Your task to perform on an android device: turn pop-ups on in chrome Image 0: 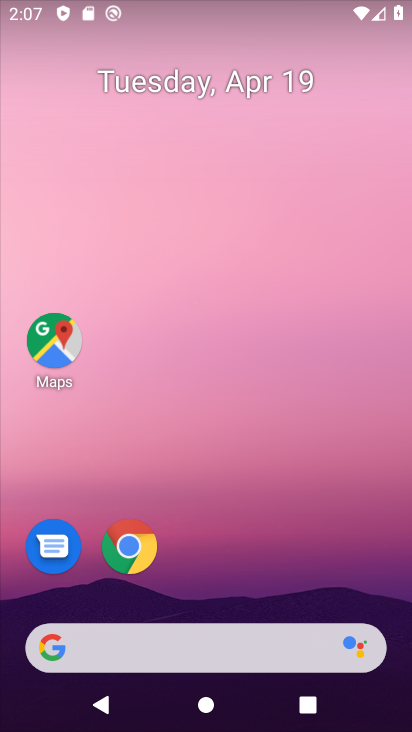
Step 0: click (131, 556)
Your task to perform on an android device: turn pop-ups on in chrome Image 1: 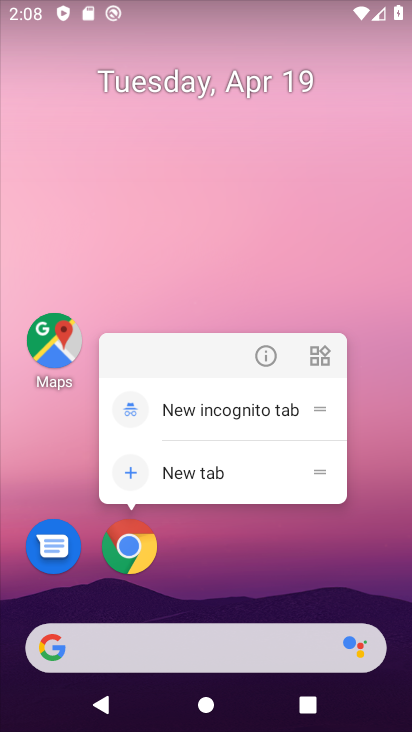
Step 1: click (131, 556)
Your task to perform on an android device: turn pop-ups on in chrome Image 2: 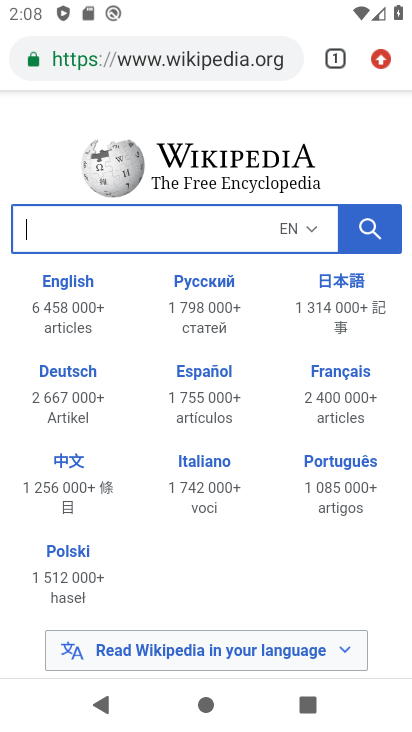
Step 2: drag from (379, 70) to (187, 575)
Your task to perform on an android device: turn pop-ups on in chrome Image 3: 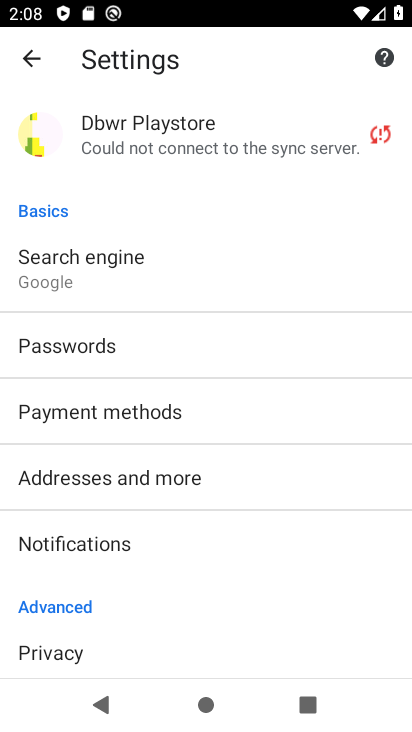
Step 3: drag from (111, 574) to (96, 51)
Your task to perform on an android device: turn pop-ups on in chrome Image 4: 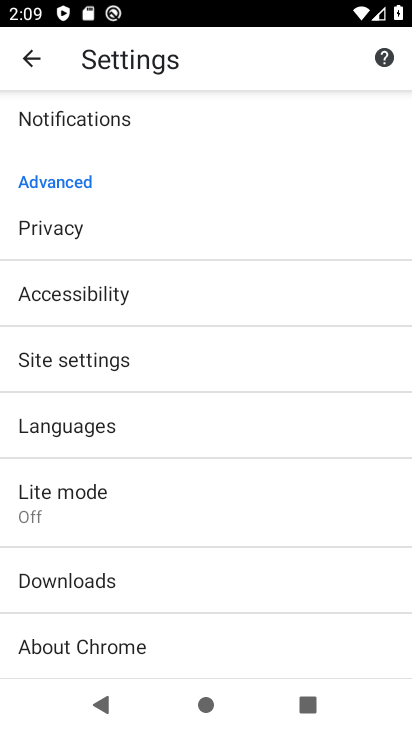
Step 4: click (73, 360)
Your task to perform on an android device: turn pop-ups on in chrome Image 5: 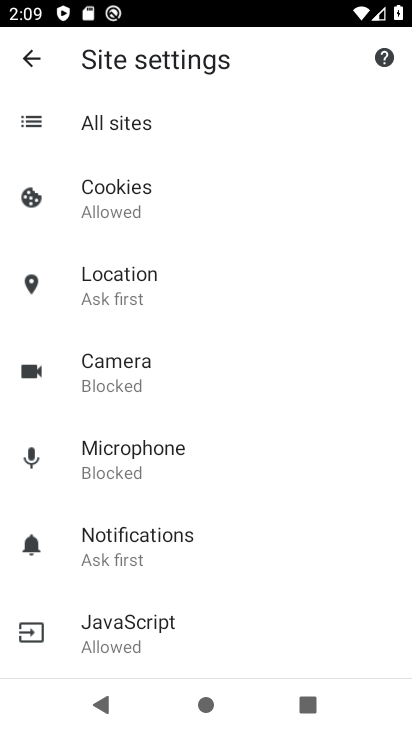
Step 5: drag from (146, 495) to (116, 137)
Your task to perform on an android device: turn pop-ups on in chrome Image 6: 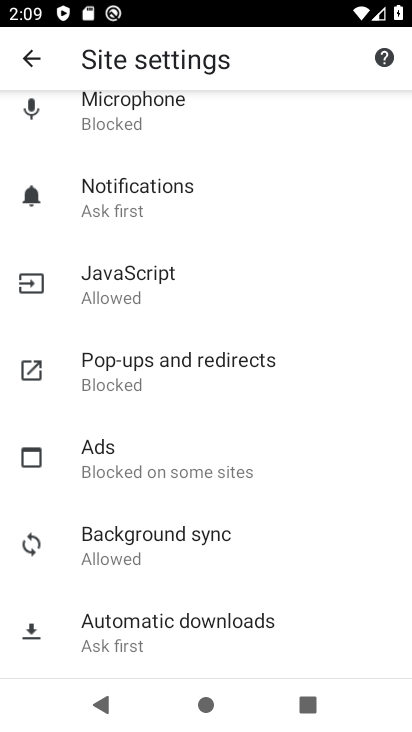
Step 6: click (162, 361)
Your task to perform on an android device: turn pop-ups on in chrome Image 7: 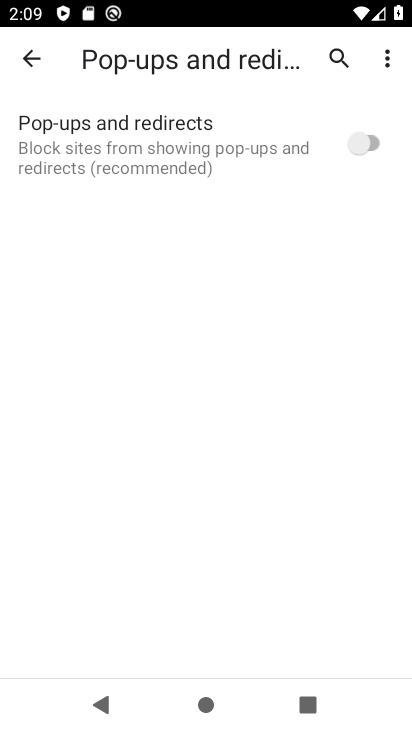
Step 7: click (369, 134)
Your task to perform on an android device: turn pop-ups on in chrome Image 8: 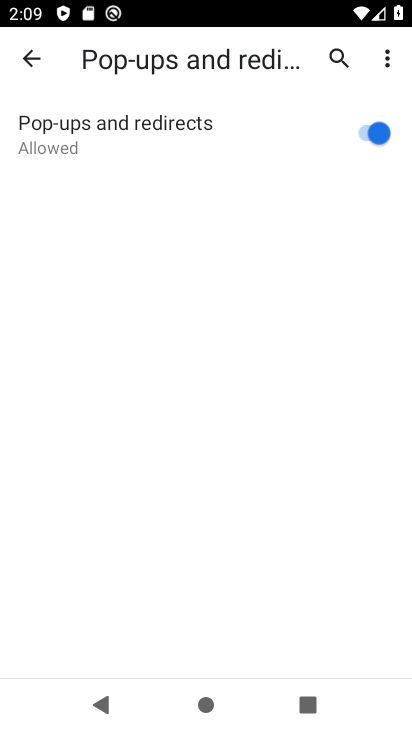
Step 8: task complete